Your task to perform on an android device: delete location history Image 0: 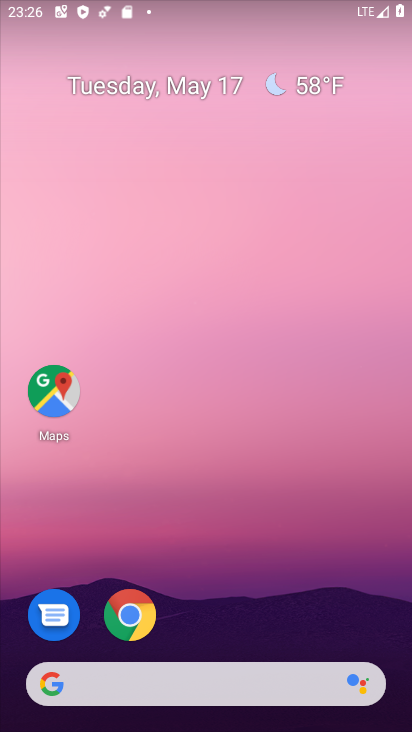
Step 0: click (51, 410)
Your task to perform on an android device: delete location history Image 1: 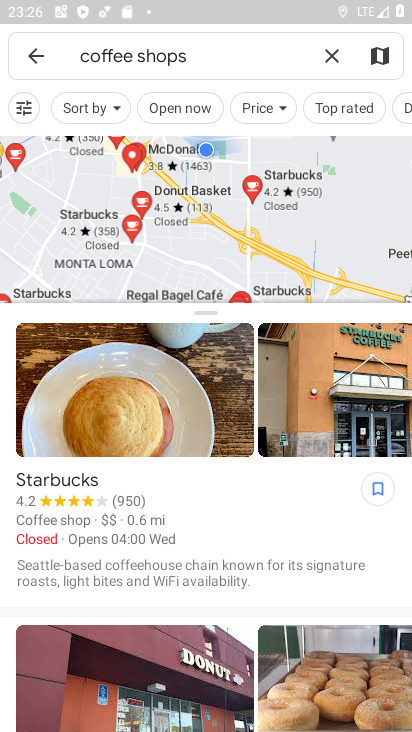
Step 1: click (37, 56)
Your task to perform on an android device: delete location history Image 2: 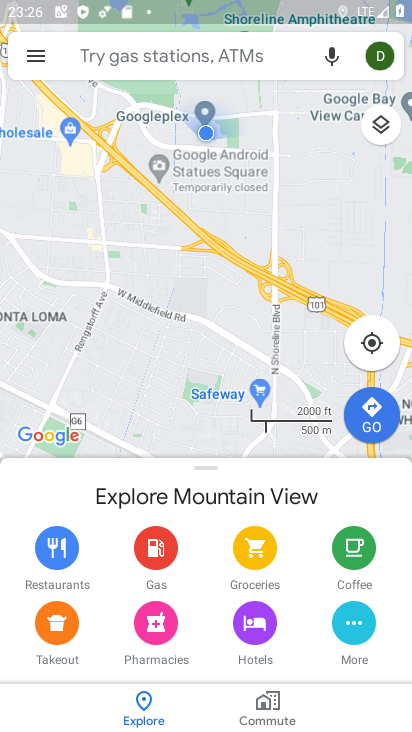
Step 2: click (37, 56)
Your task to perform on an android device: delete location history Image 3: 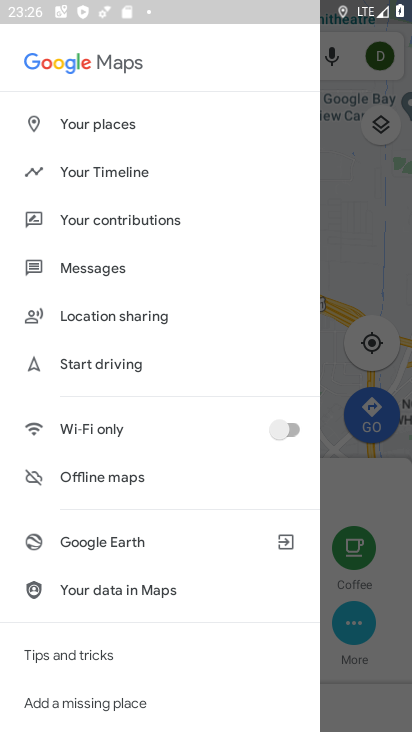
Step 3: click (90, 176)
Your task to perform on an android device: delete location history Image 4: 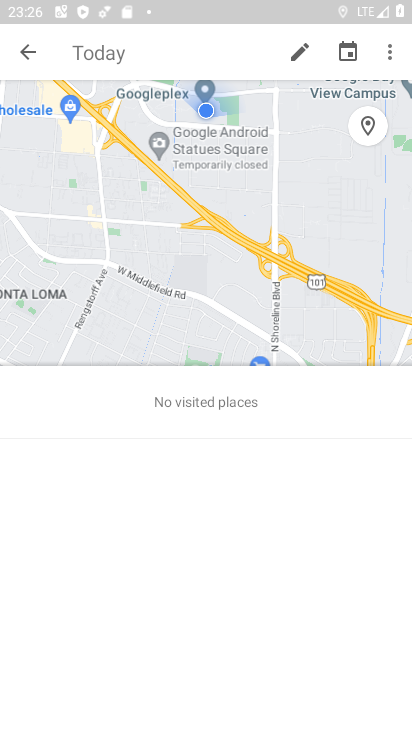
Step 4: click (384, 46)
Your task to perform on an android device: delete location history Image 5: 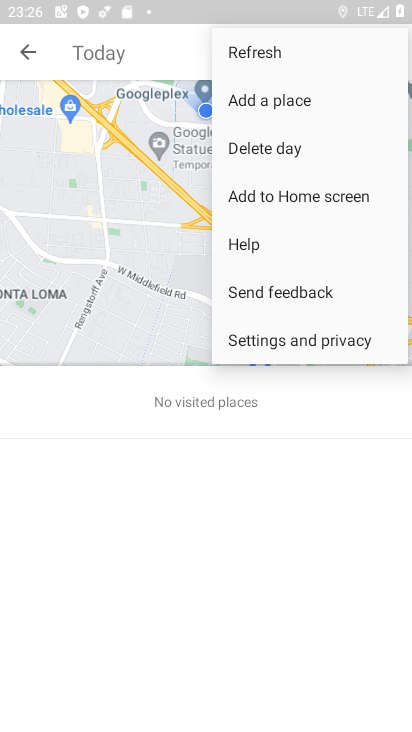
Step 5: click (285, 337)
Your task to perform on an android device: delete location history Image 6: 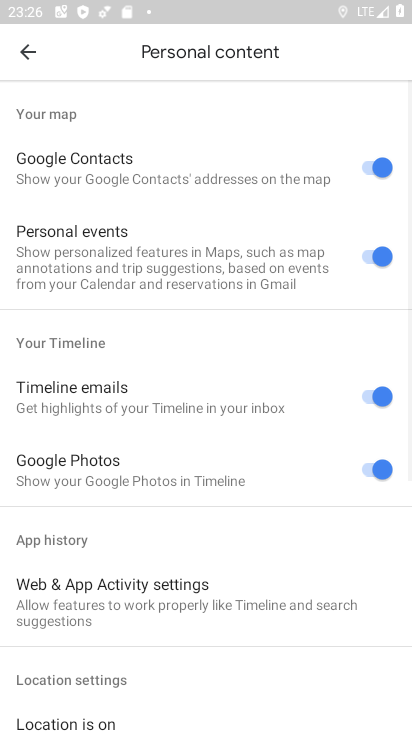
Step 6: drag from (177, 652) to (214, 237)
Your task to perform on an android device: delete location history Image 7: 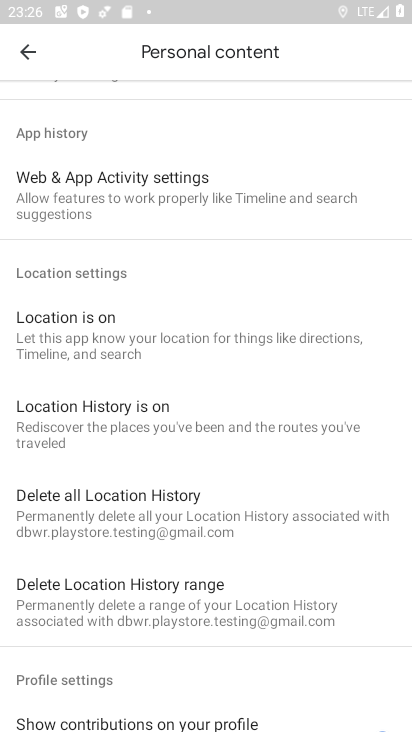
Step 7: click (195, 512)
Your task to perform on an android device: delete location history Image 8: 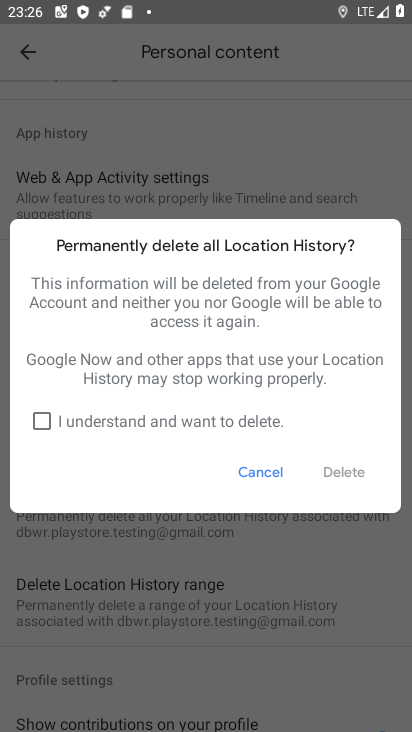
Step 8: click (109, 412)
Your task to perform on an android device: delete location history Image 9: 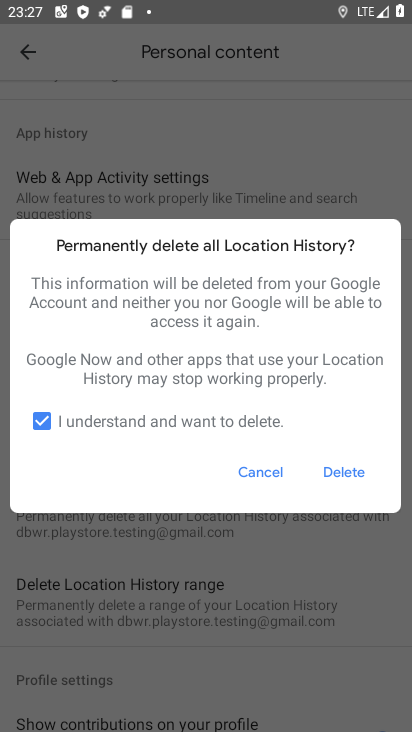
Step 9: click (342, 464)
Your task to perform on an android device: delete location history Image 10: 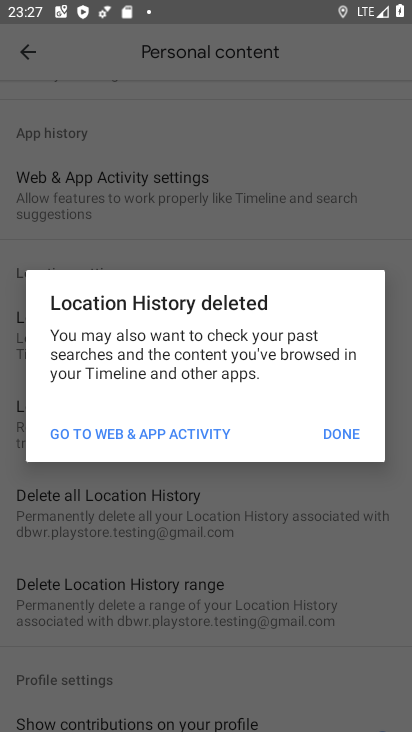
Step 10: task complete